Your task to perform on an android device: Open display settings Image 0: 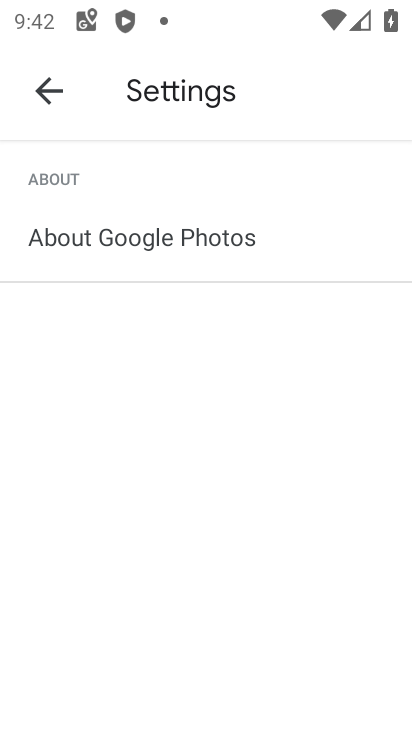
Step 0: press home button
Your task to perform on an android device: Open display settings Image 1: 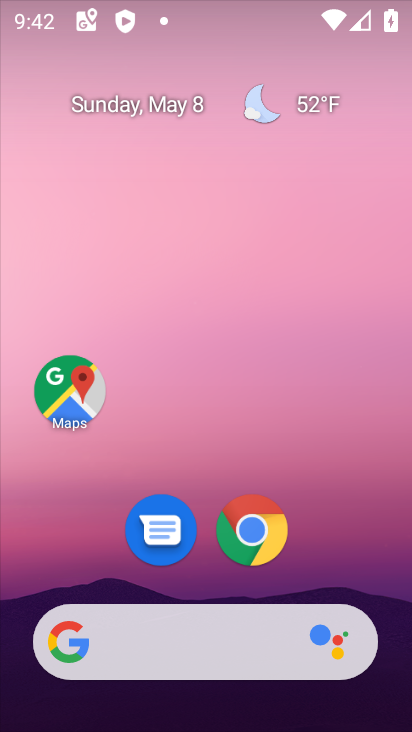
Step 1: drag from (372, 553) to (332, 119)
Your task to perform on an android device: Open display settings Image 2: 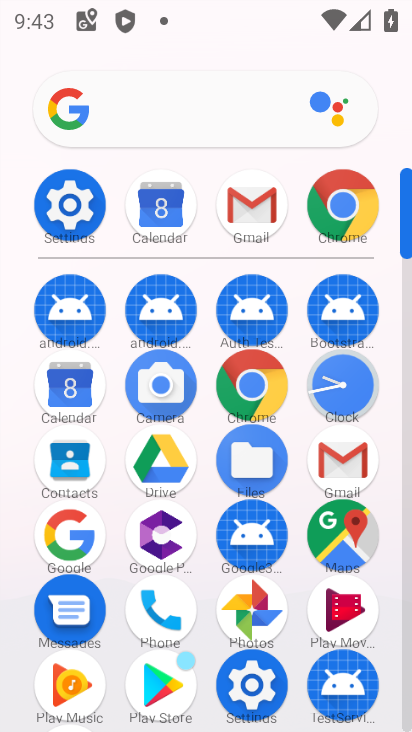
Step 2: click (240, 668)
Your task to perform on an android device: Open display settings Image 3: 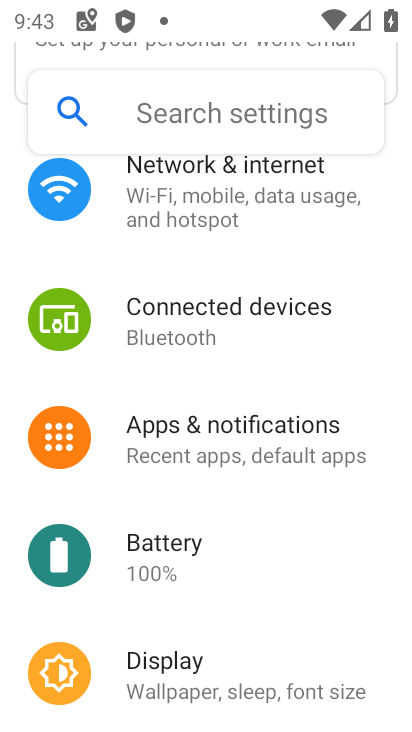
Step 3: drag from (279, 629) to (316, 290)
Your task to perform on an android device: Open display settings Image 4: 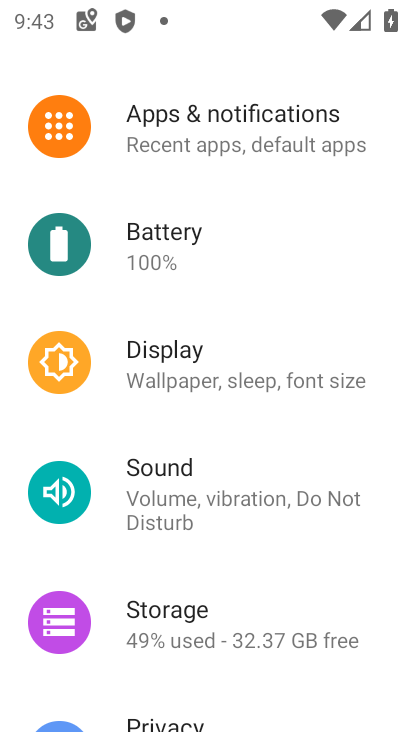
Step 4: drag from (290, 591) to (300, 292)
Your task to perform on an android device: Open display settings Image 5: 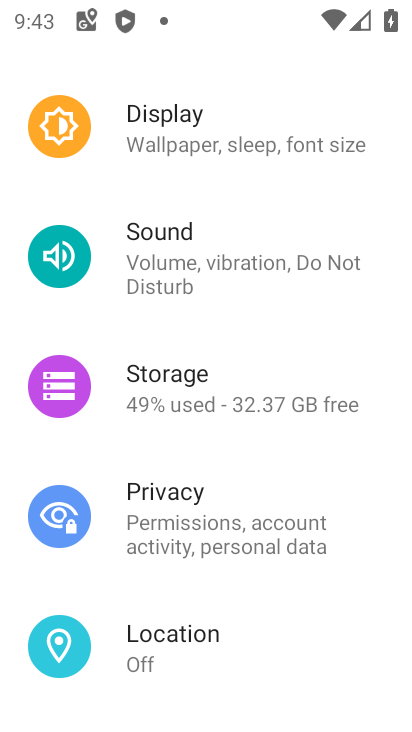
Step 5: click (233, 146)
Your task to perform on an android device: Open display settings Image 6: 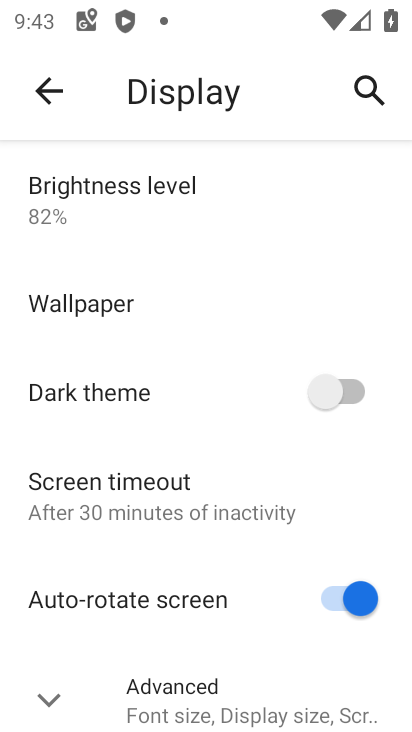
Step 6: drag from (237, 632) to (217, 290)
Your task to perform on an android device: Open display settings Image 7: 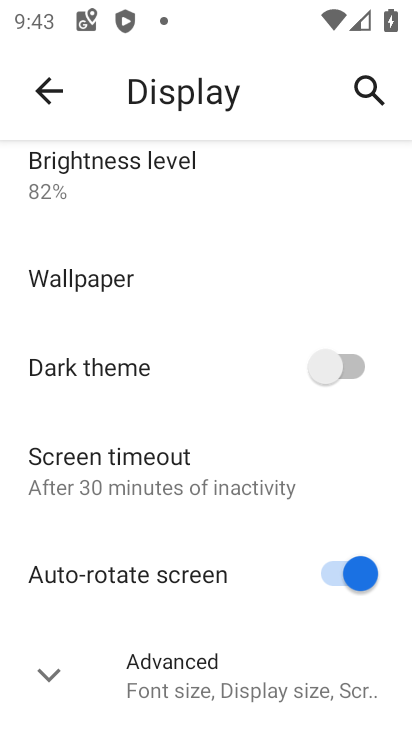
Step 7: click (106, 655)
Your task to perform on an android device: Open display settings Image 8: 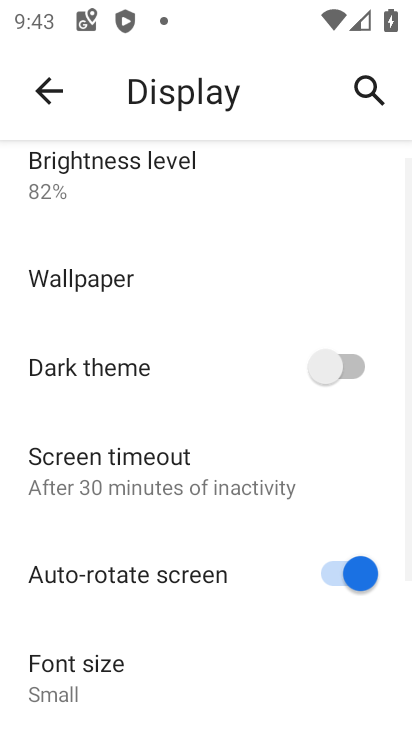
Step 8: task complete